Your task to perform on an android device: Find coffee shops on Maps Image 0: 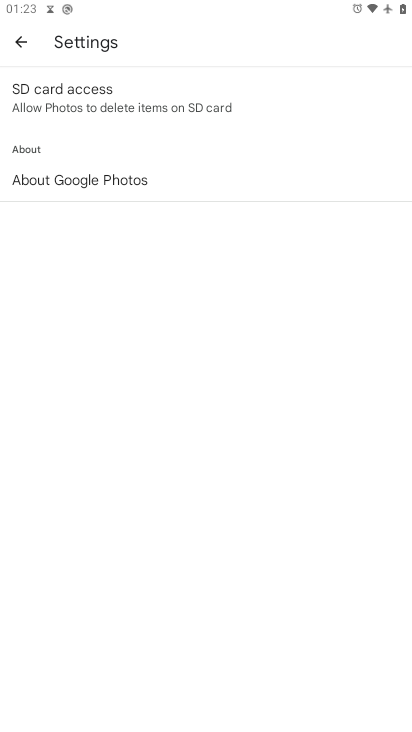
Step 0: press home button
Your task to perform on an android device: Find coffee shops on Maps Image 1: 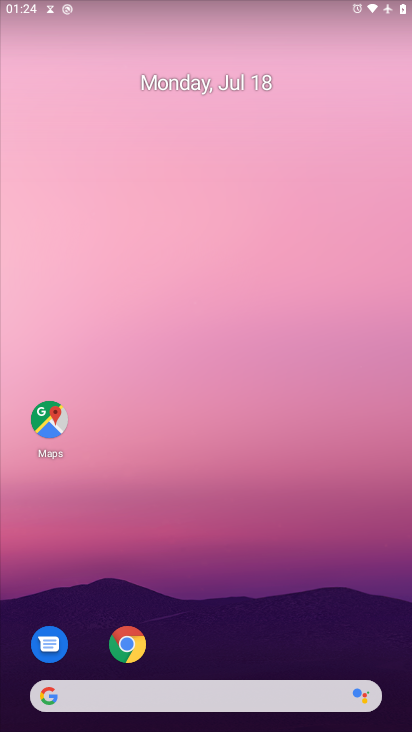
Step 1: drag from (253, 621) to (262, 3)
Your task to perform on an android device: Find coffee shops on Maps Image 2: 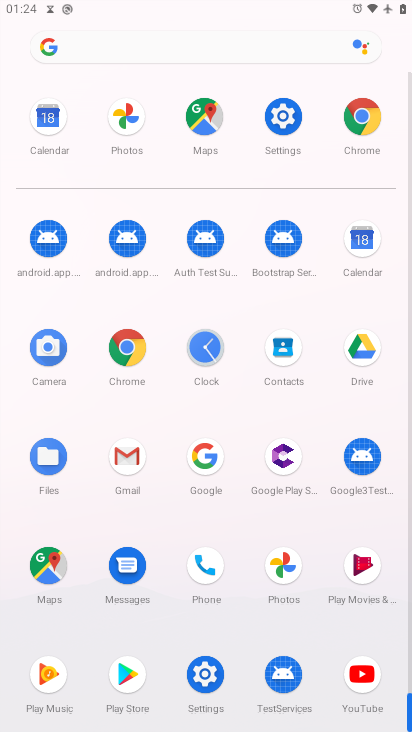
Step 2: click (211, 126)
Your task to perform on an android device: Find coffee shops on Maps Image 3: 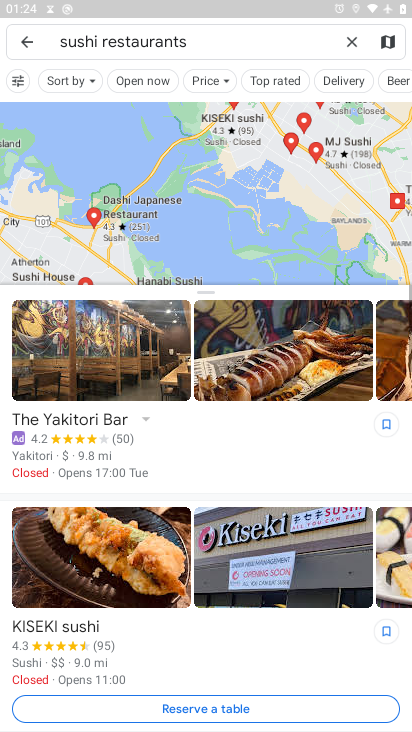
Step 3: click (352, 41)
Your task to perform on an android device: Find coffee shops on Maps Image 4: 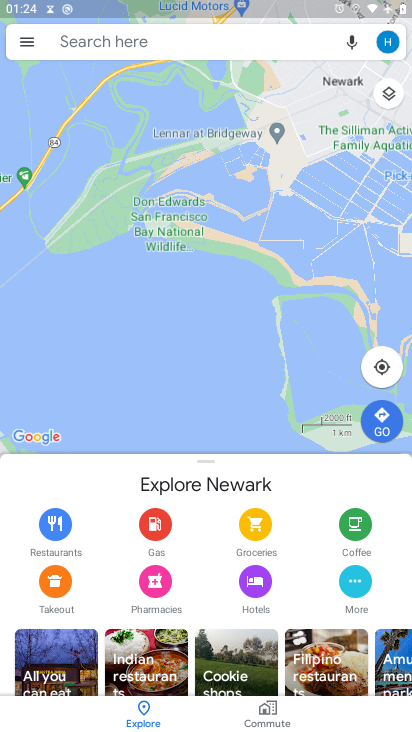
Step 4: click (116, 37)
Your task to perform on an android device: Find coffee shops on Maps Image 5: 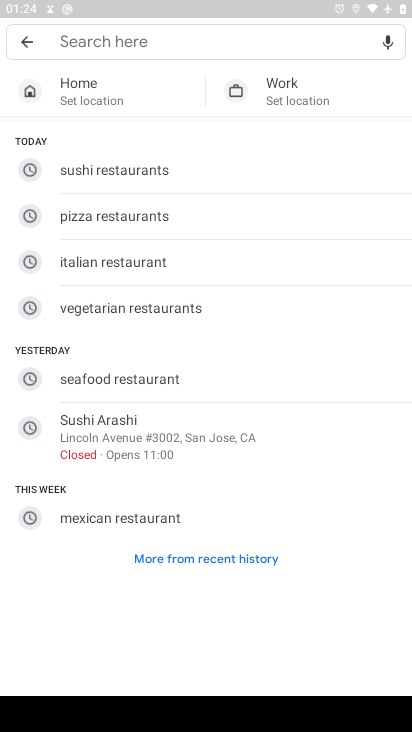
Step 5: type "coffee shops"
Your task to perform on an android device: Find coffee shops on Maps Image 6: 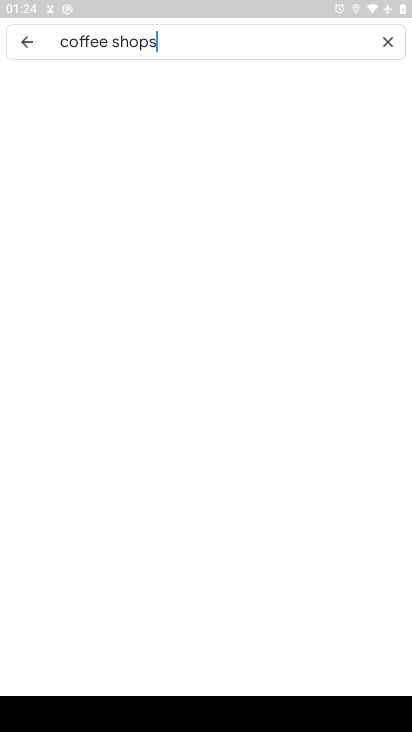
Step 6: press enter
Your task to perform on an android device: Find coffee shops on Maps Image 7: 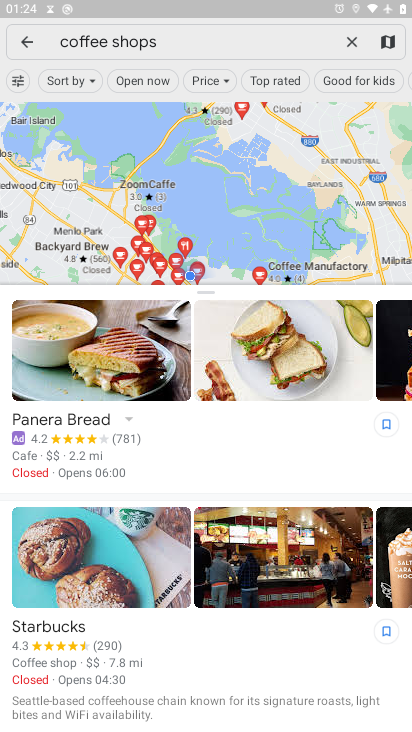
Step 7: task complete